Your task to perform on an android device: set the stopwatch Image 0: 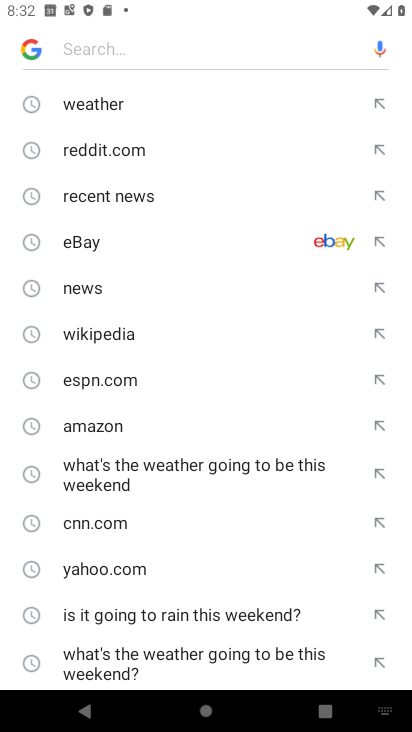
Step 0: press home button
Your task to perform on an android device: set the stopwatch Image 1: 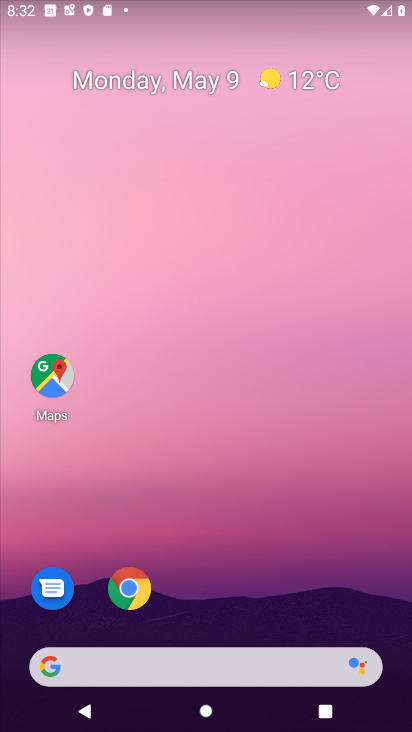
Step 1: drag from (167, 670) to (340, 37)
Your task to perform on an android device: set the stopwatch Image 2: 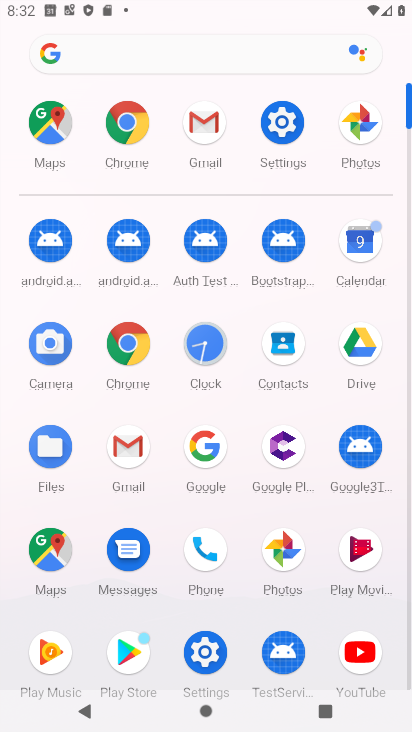
Step 2: click (206, 353)
Your task to perform on an android device: set the stopwatch Image 3: 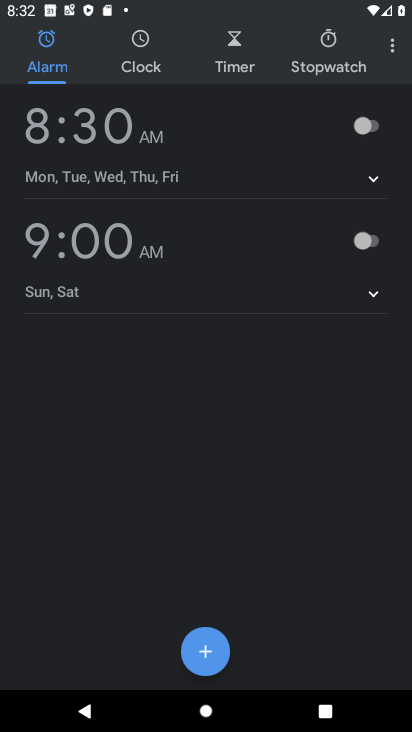
Step 3: click (325, 53)
Your task to perform on an android device: set the stopwatch Image 4: 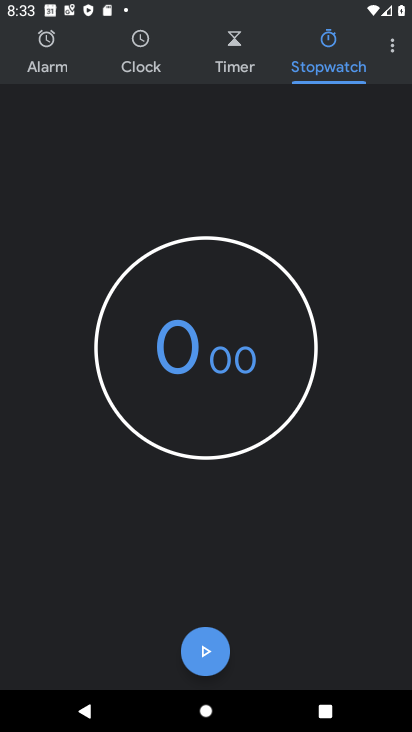
Step 4: click (245, 355)
Your task to perform on an android device: set the stopwatch Image 5: 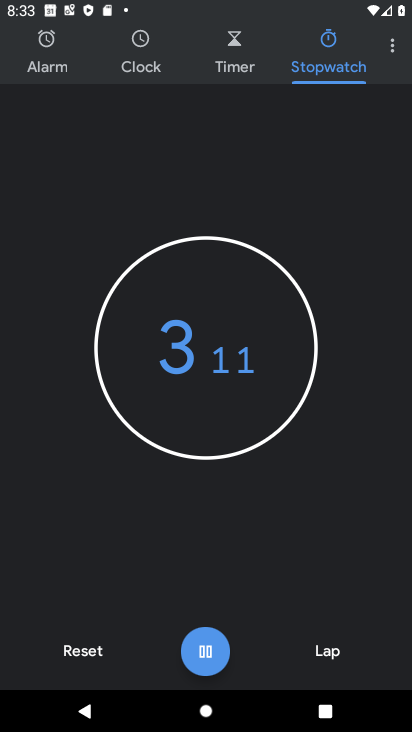
Step 5: click (233, 353)
Your task to perform on an android device: set the stopwatch Image 6: 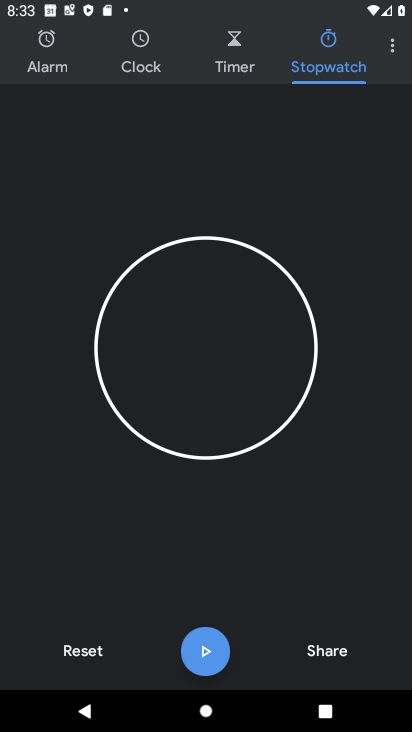
Step 6: task complete